Your task to perform on an android device: open chrome and create a bookmark for the current page Image 0: 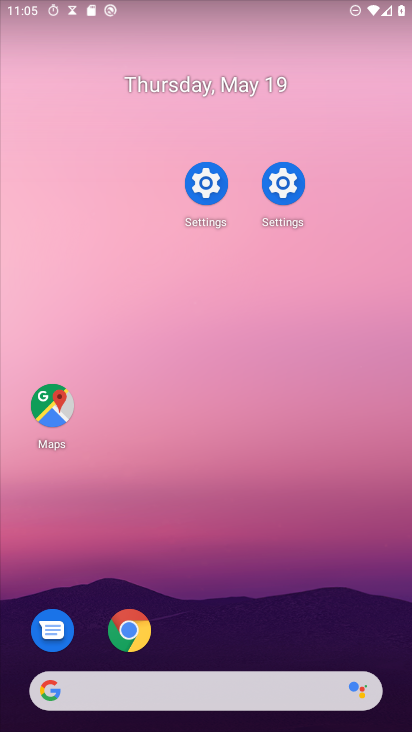
Step 0: click (116, 10)
Your task to perform on an android device: open chrome and create a bookmark for the current page Image 1: 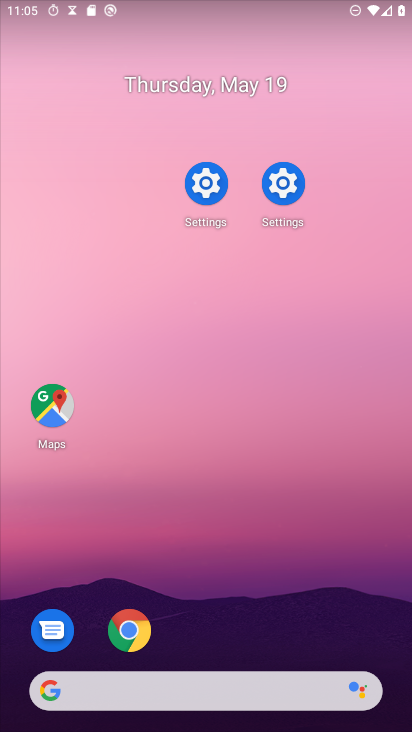
Step 1: drag from (277, 612) to (152, 57)
Your task to perform on an android device: open chrome and create a bookmark for the current page Image 2: 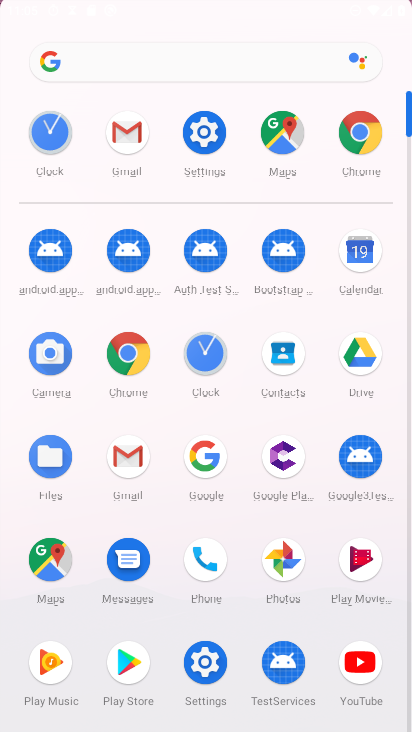
Step 2: drag from (156, 484) to (22, 29)
Your task to perform on an android device: open chrome and create a bookmark for the current page Image 3: 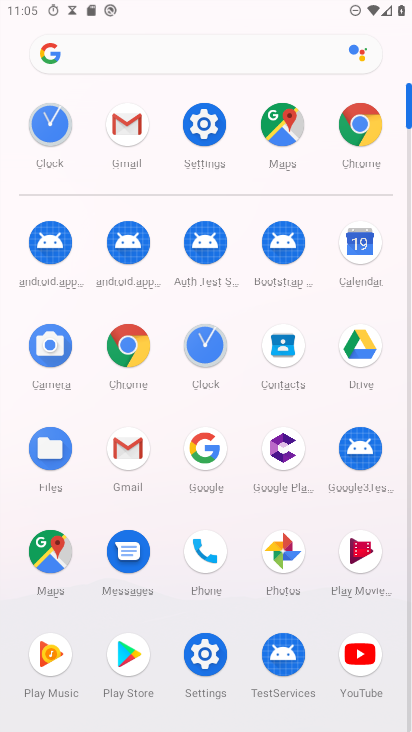
Step 3: click (359, 119)
Your task to perform on an android device: open chrome and create a bookmark for the current page Image 4: 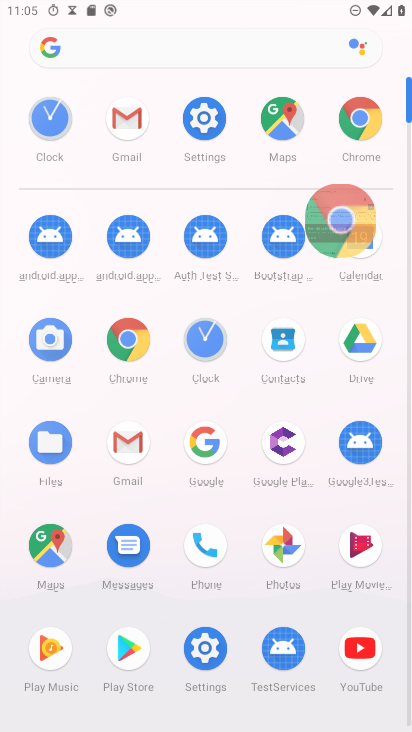
Step 4: click (359, 119)
Your task to perform on an android device: open chrome and create a bookmark for the current page Image 5: 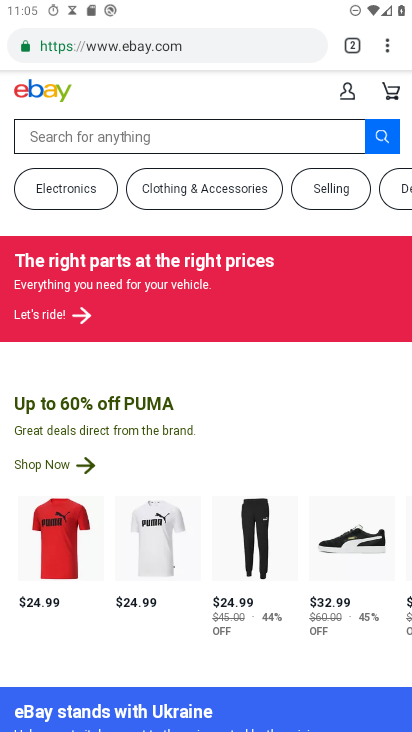
Step 5: drag from (376, 44) to (222, 93)
Your task to perform on an android device: open chrome and create a bookmark for the current page Image 6: 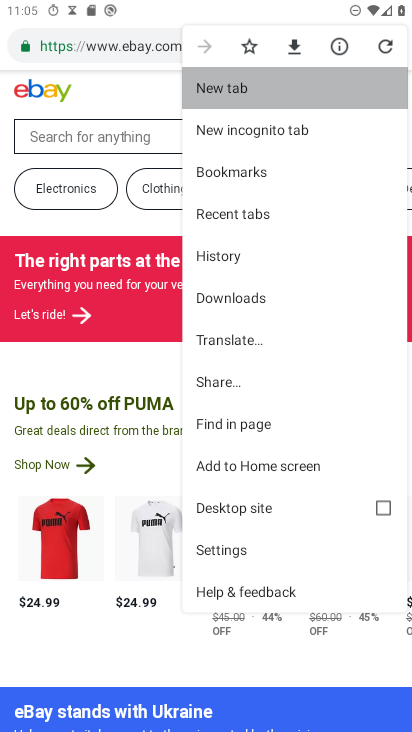
Step 6: click (222, 93)
Your task to perform on an android device: open chrome and create a bookmark for the current page Image 7: 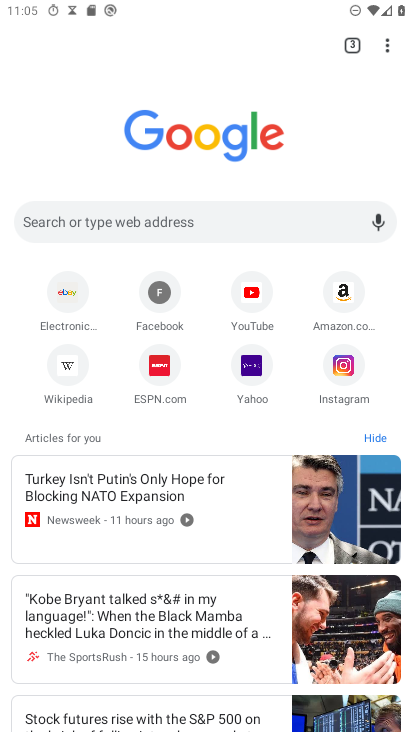
Step 7: click (66, 221)
Your task to perform on an android device: open chrome and create a bookmark for the current page Image 8: 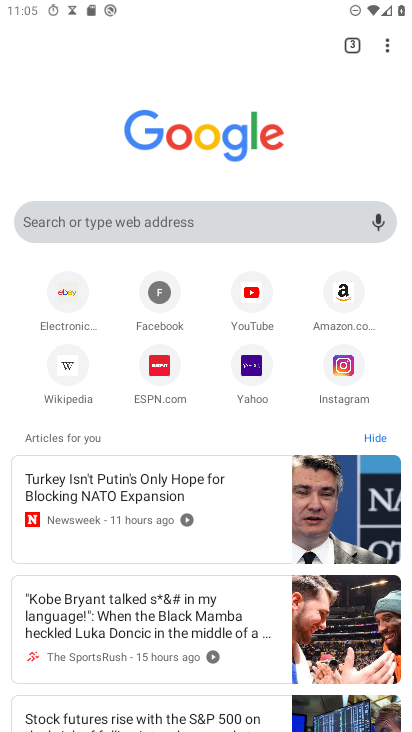
Step 8: click (65, 223)
Your task to perform on an android device: open chrome and create a bookmark for the current page Image 9: 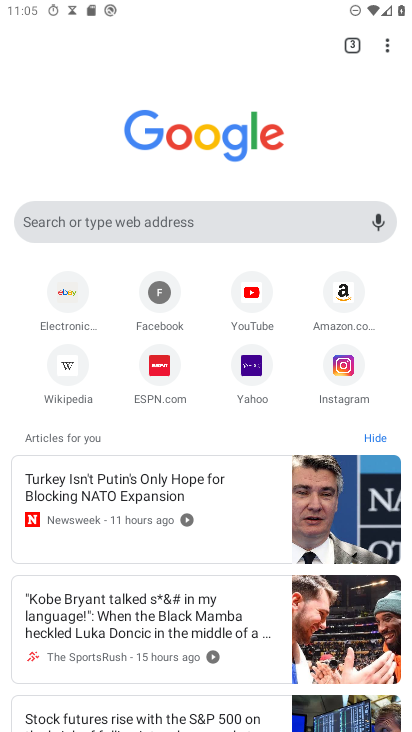
Step 9: click (64, 222)
Your task to perform on an android device: open chrome and create a bookmark for the current page Image 10: 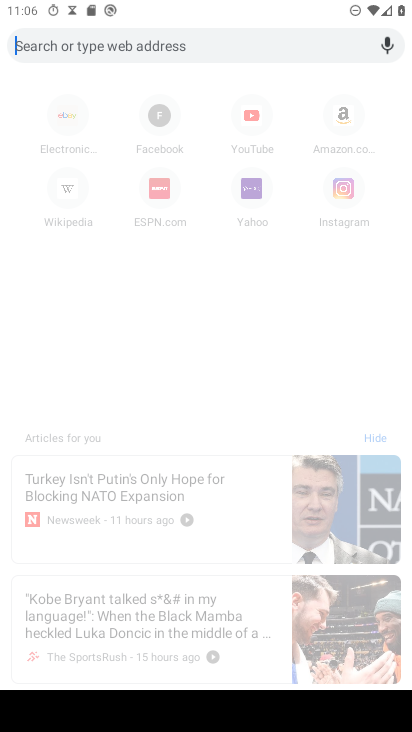
Step 10: type "www.snapdeal.com"
Your task to perform on an android device: open chrome and create a bookmark for the current page Image 11: 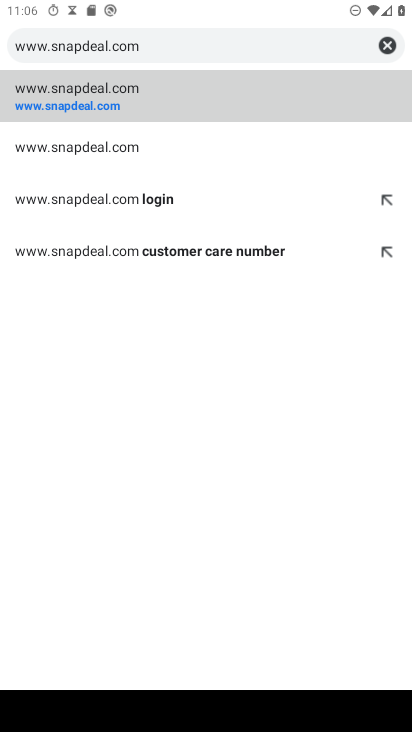
Step 11: click (2, 168)
Your task to perform on an android device: open chrome and create a bookmark for the current page Image 12: 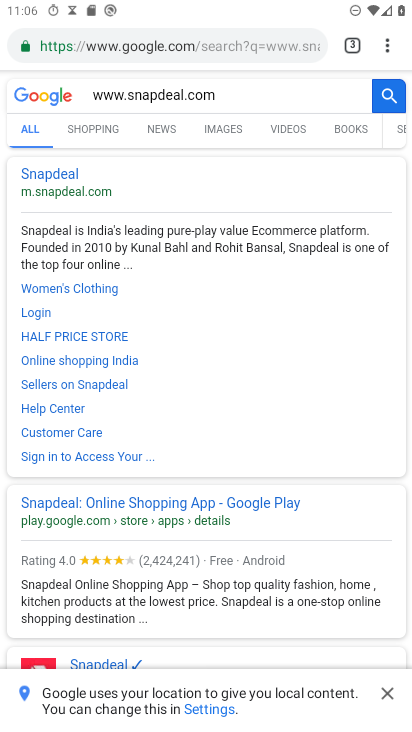
Step 12: task complete